Your task to perform on an android device: Open my contact list Image 0: 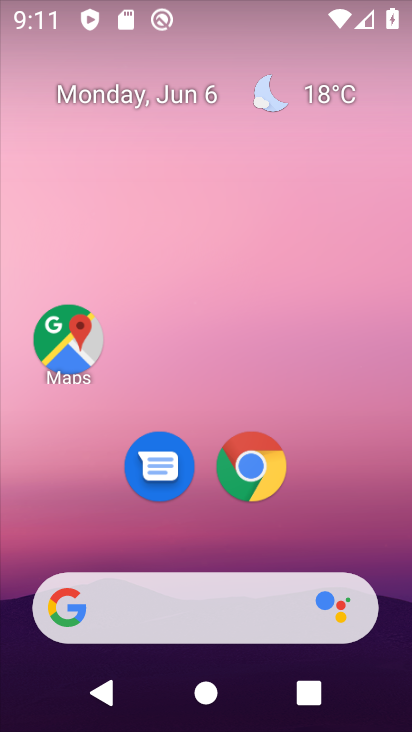
Step 0: click (243, 100)
Your task to perform on an android device: Open my contact list Image 1: 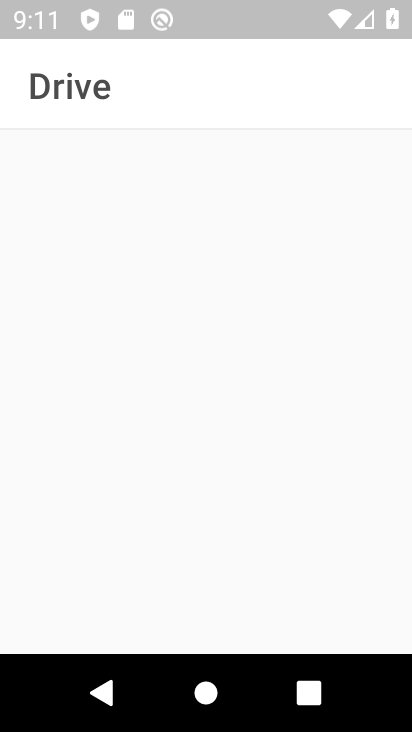
Step 1: press back button
Your task to perform on an android device: Open my contact list Image 2: 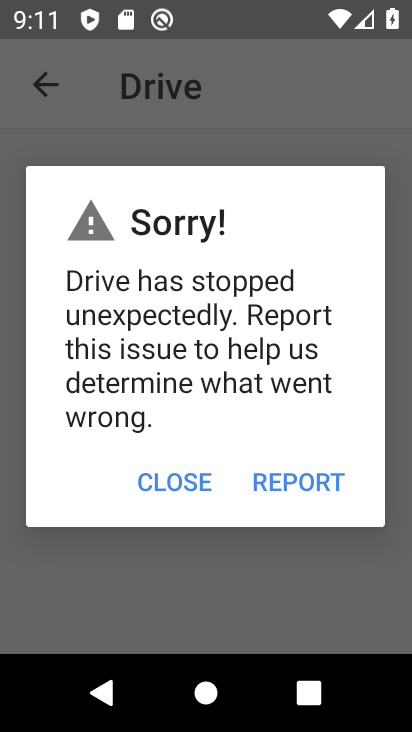
Step 2: press home button
Your task to perform on an android device: Open my contact list Image 3: 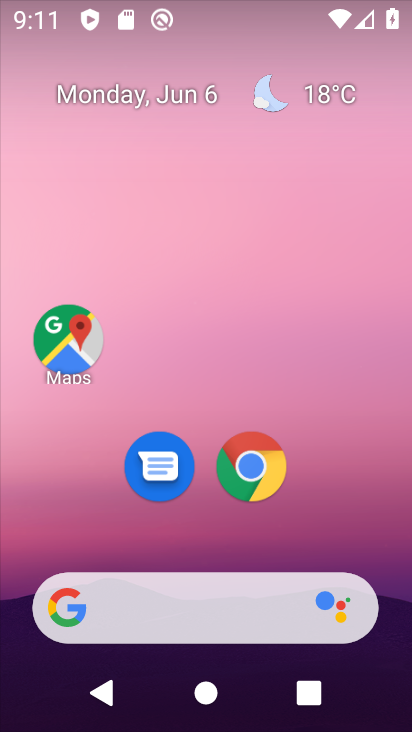
Step 3: click (163, 542)
Your task to perform on an android device: Open my contact list Image 4: 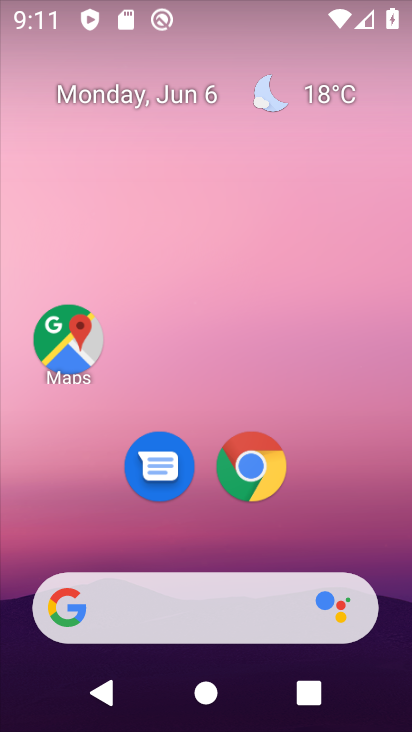
Step 4: drag from (199, 549) to (399, 0)
Your task to perform on an android device: Open my contact list Image 5: 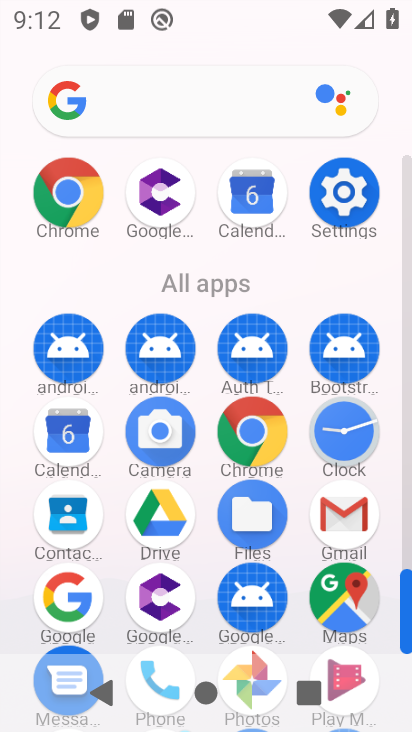
Step 5: click (71, 534)
Your task to perform on an android device: Open my contact list Image 6: 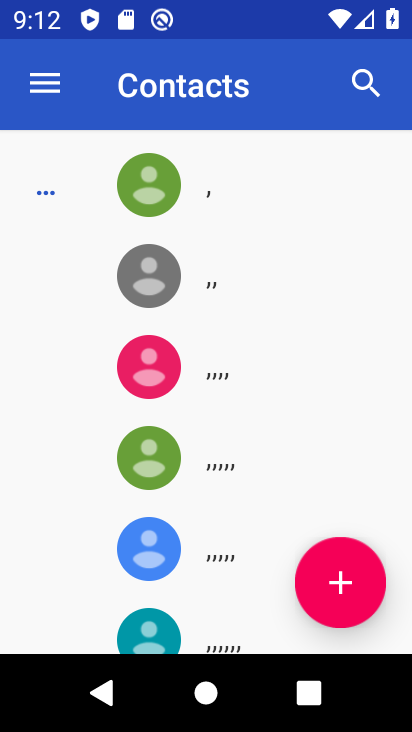
Step 6: task complete